Your task to perform on an android device: turn on the 12-hour format for clock Image 0: 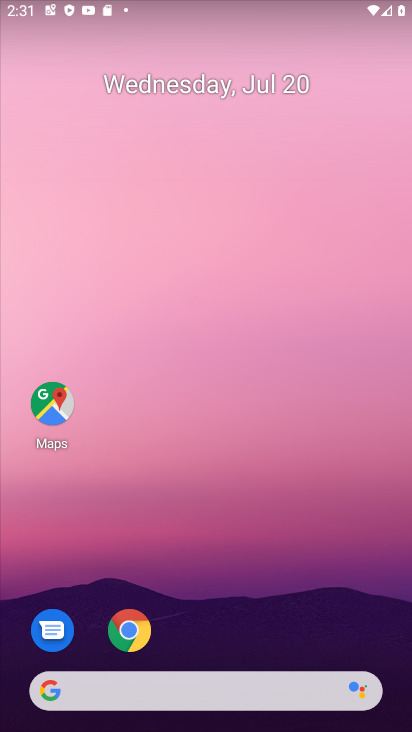
Step 0: drag from (312, 603) to (379, 100)
Your task to perform on an android device: turn on the 12-hour format for clock Image 1: 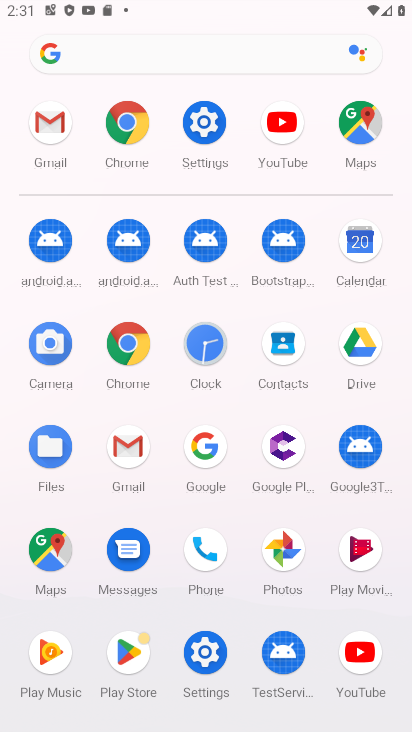
Step 1: click (211, 344)
Your task to perform on an android device: turn on the 12-hour format for clock Image 2: 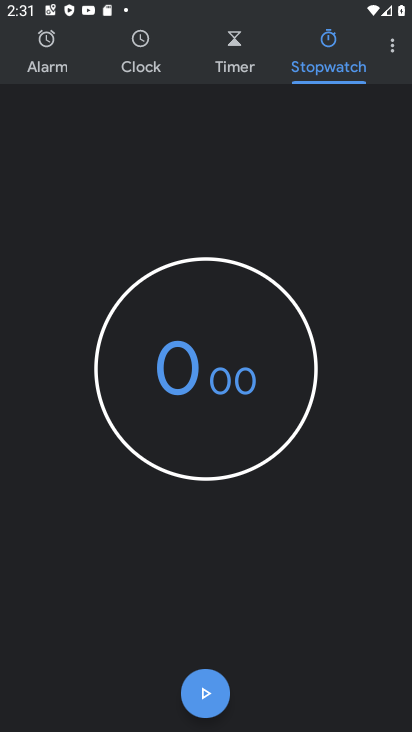
Step 2: click (392, 52)
Your task to perform on an android device: turn on the 12-hour format for clock Image 3: 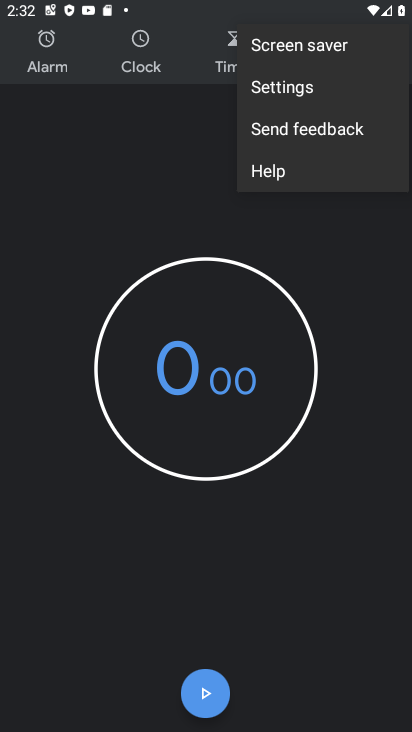
Step 3: click (361, 85)
Your task to perform on an android device: turn on the 12-hour format for clock Image 4: 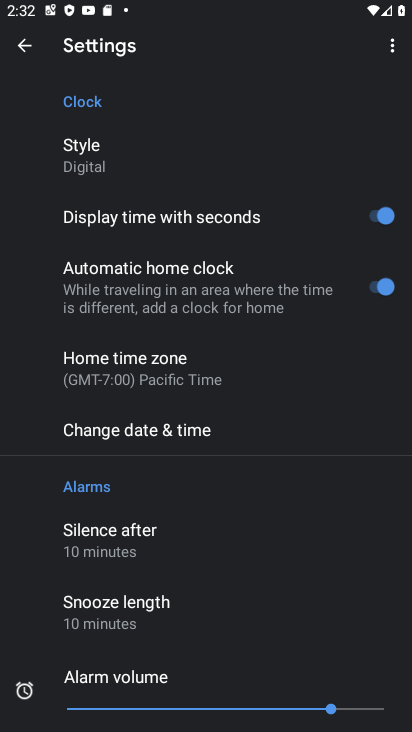
Step 4: drag from (321, 388) to (332, 320)
Your task to perform on an android device: turn on the 12-hour format for clock Image 5: 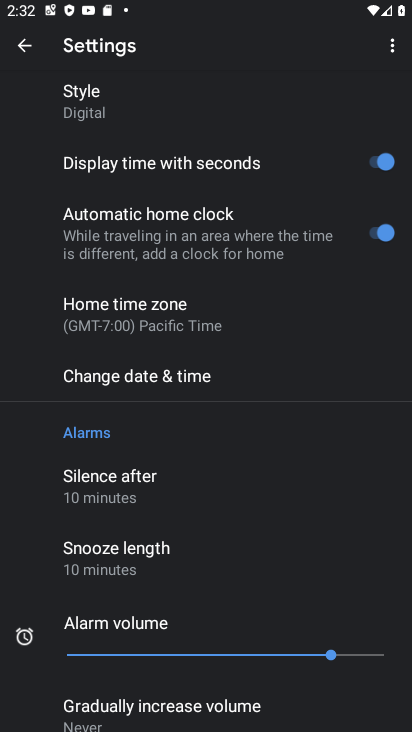
Step 5: drag from (331, 449) to (343, 313)
Your task to perform on an android device: turn on the 12-hour format for clock Image 6: 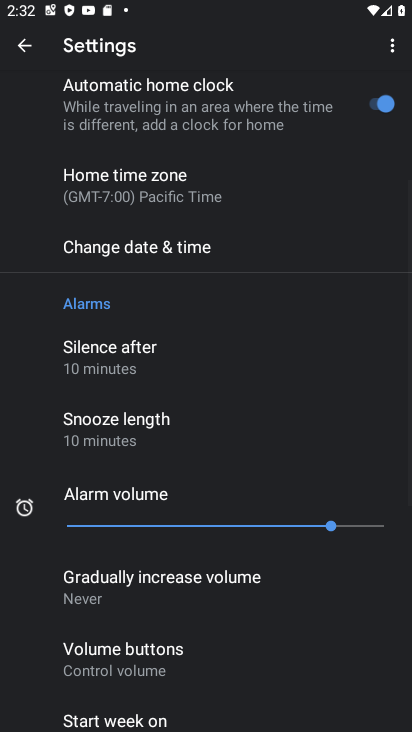
Step 6: drag from (326, 433) to (318, 321)
Your task to perform on an android device: turn on the 12-hour format for clock Image 7: 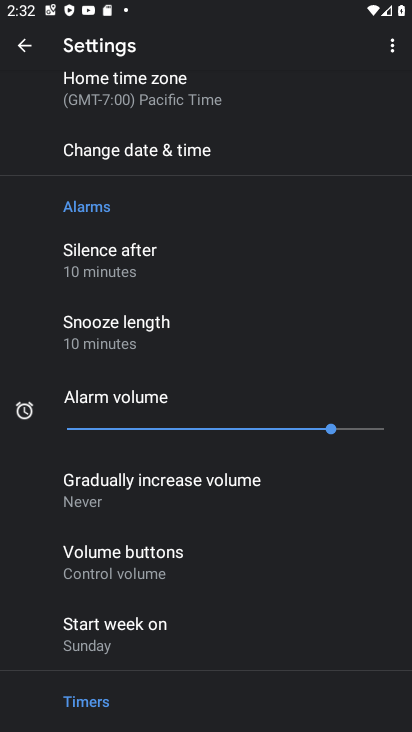
Step 7: drag from (301, 432) to (306, 318)
Your task to perform on an android device: turn on the 12-hour format for clock Image 8: 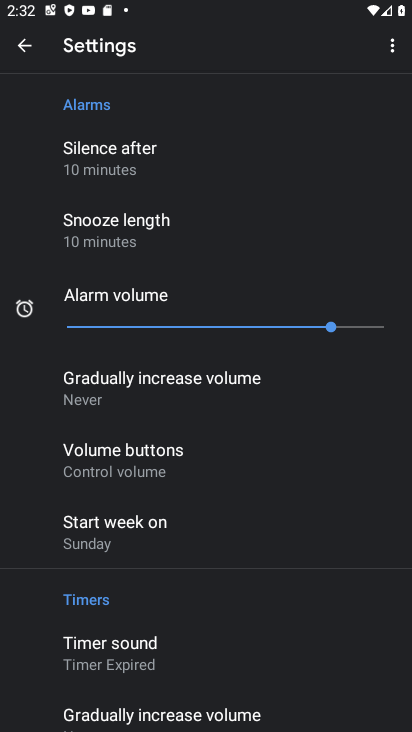
Step 8: drag from (301, 537) to (307, 436)
Your task to perform on an android device: turn on the 12-hour format for clock Image 9: 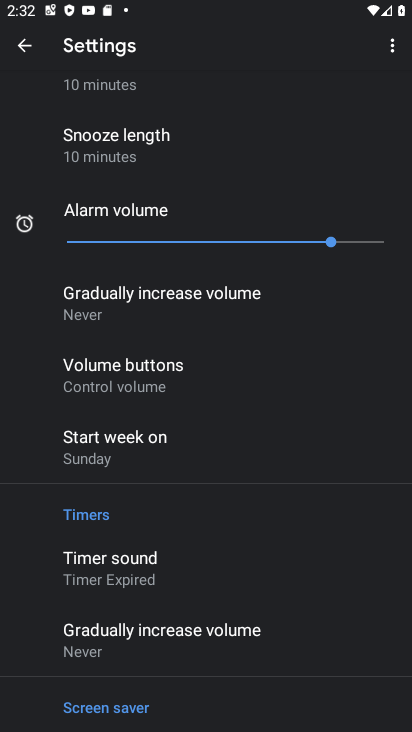
Step 9: drag from (308, 547) to (309, 431)
Your task to perform on an android device: turn on the 12-hour format for clock Image 10: 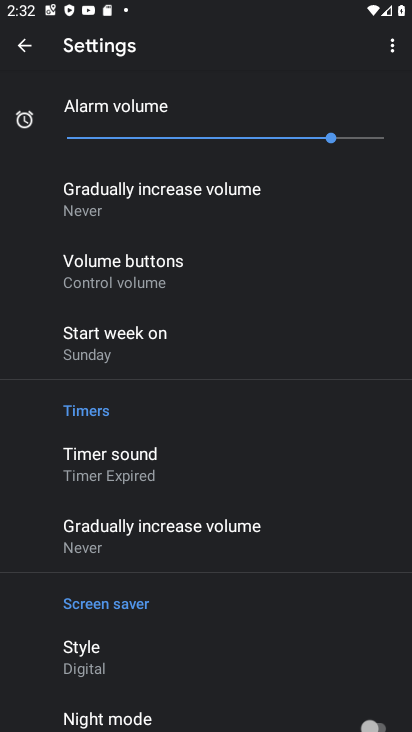
Step 10: drag from (316, 311) to (318, 421)
Your task to perform on an android device: turn on the 12-hour format for clock Image 11: 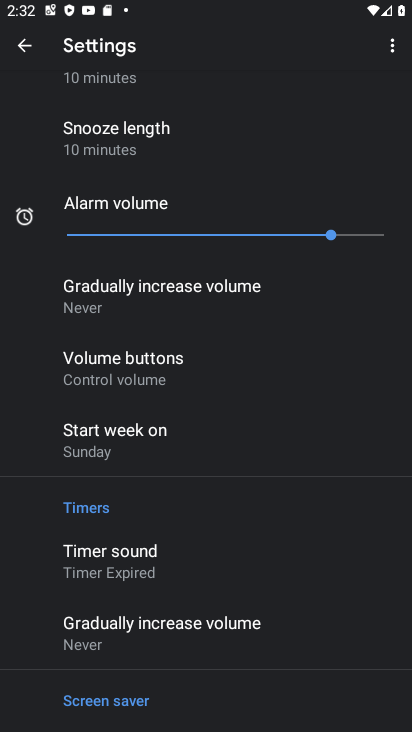
Step 11: drag from (318, 301) to (316, 437)
Your task to perform on an android device: turn on the 12-hour format for clock Image 12: 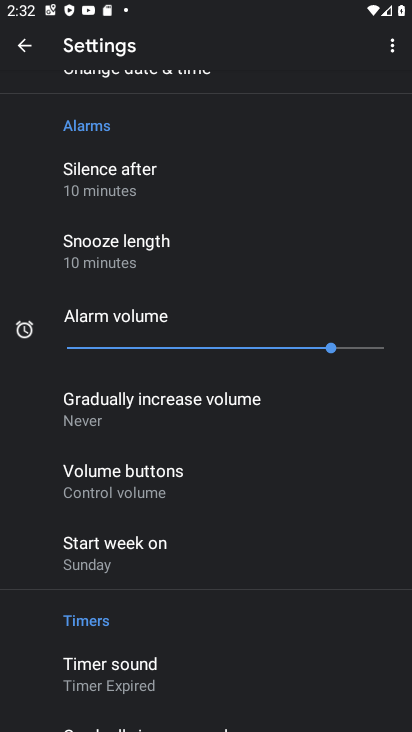
Step 12: drag from (323, 263) to (307, 405)
Your task to perform on an android device: turn on the 12-hour format for clock Image 13: 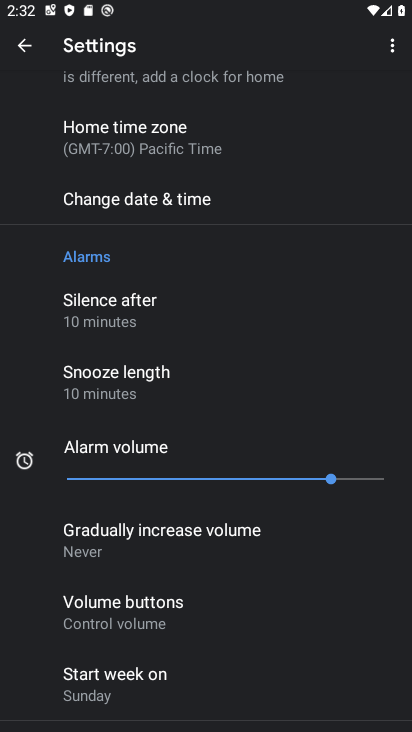
Step 13: drag from (320, 217) to (311, 357)
Your task to perform on an android device: turn on the 12-hour format for clock Image 14: 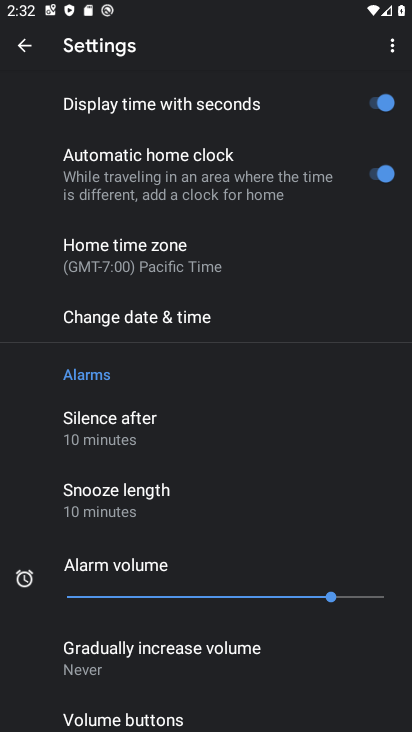
Step 14: click (245, 314)
Your task to perform on an android device: turn on the 12-hour format for clock Image 15: 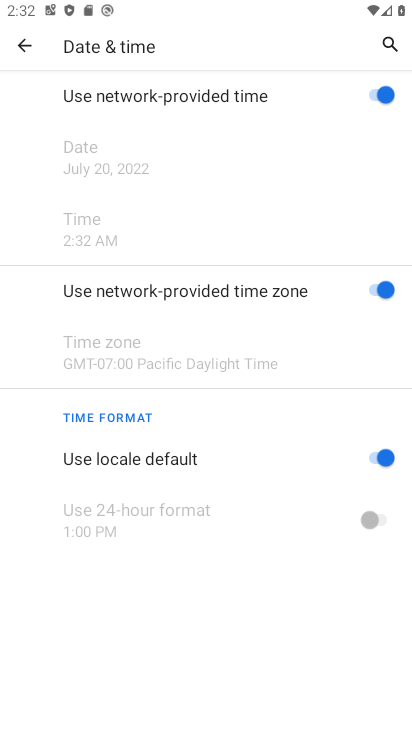
Step 15: task complete